Your task to perform on an android device: turn on priority inbox in the gmail app Image 0: 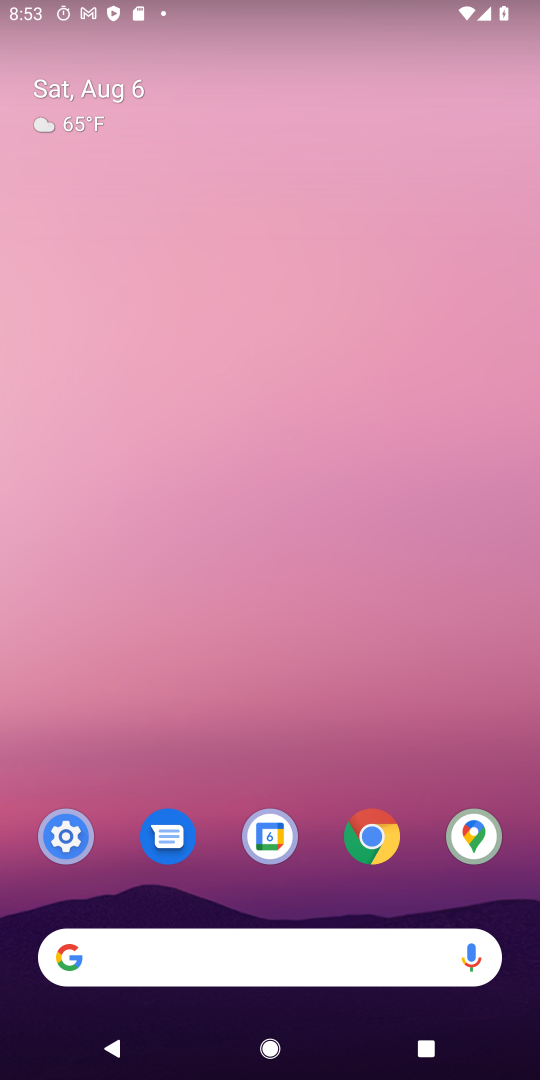
Step 0: drag from (447, 915) to (250, 64)
Your task to perform on an android device: turn on priority inbox in the gmail app Image 1: 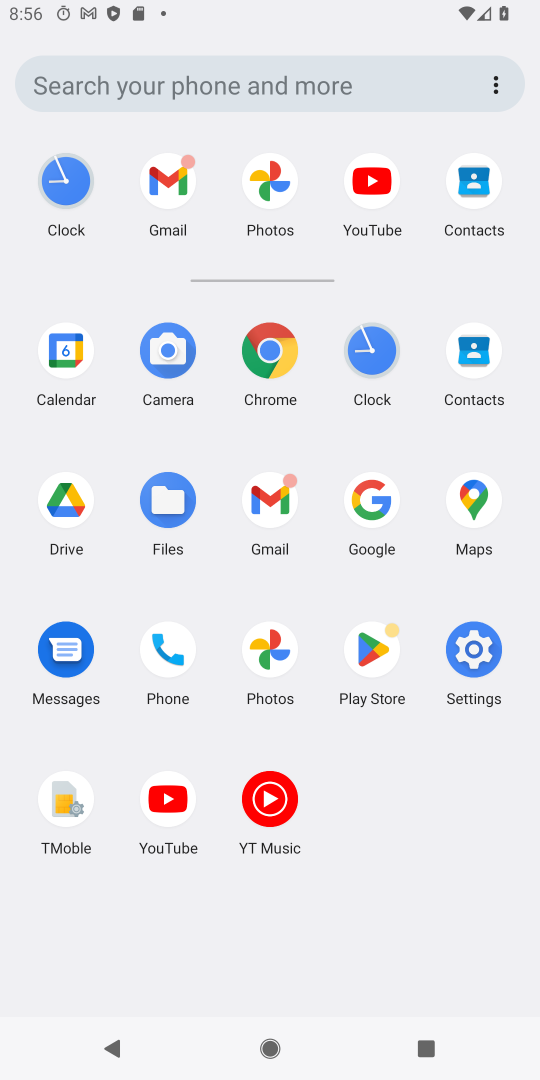
Step 1: click (273, 499)
Your task to perform on an android device: turn on priority inbox in the gmail app Image 2: 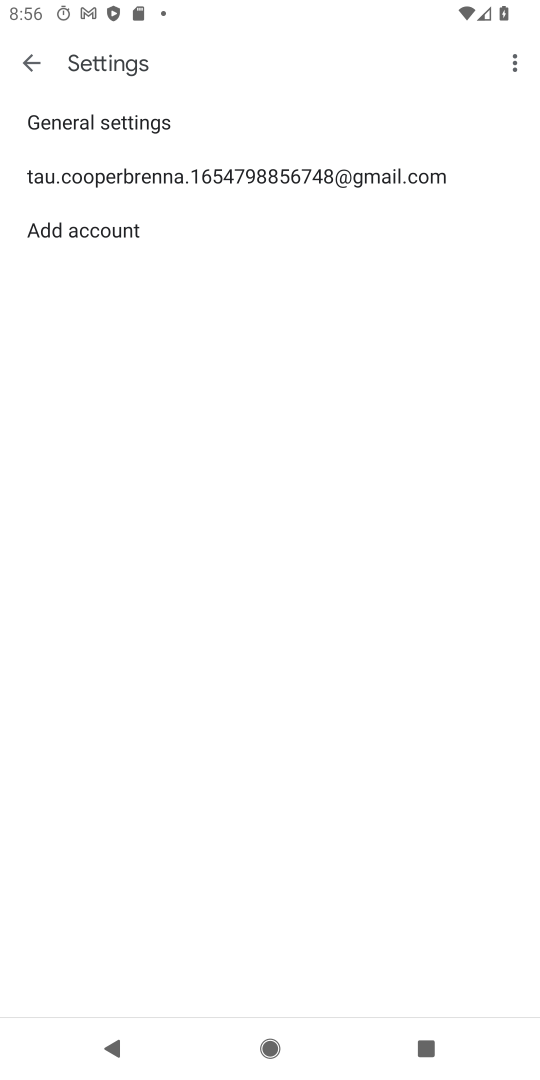
Step 2: click (382, 157)
Your task to perform on an android device: turn on priority inbox in the gmail app Image 3: 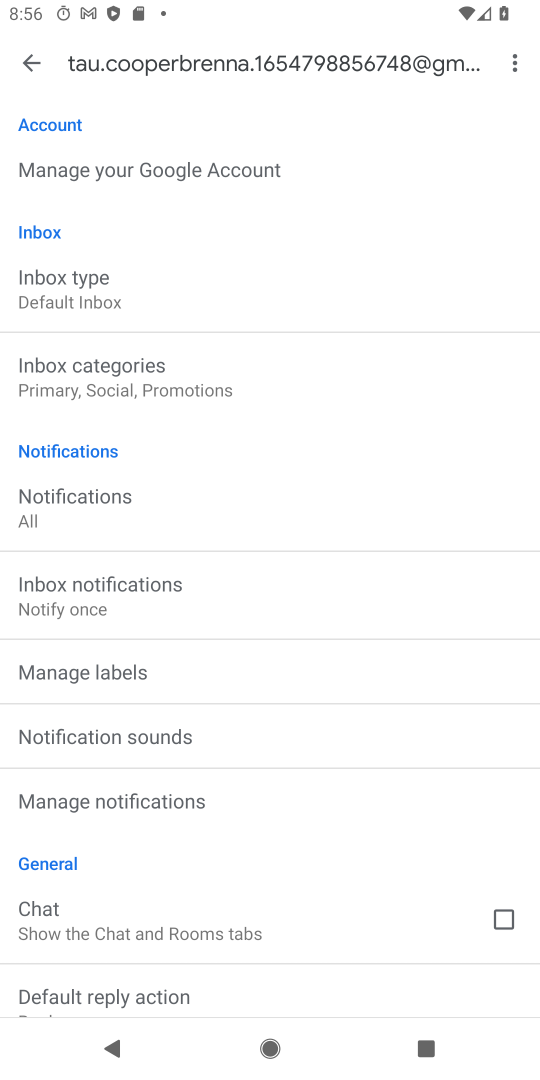
Step 3: click (84, 317)
Your task to perform on an android device: turn on priority inbox in the gmail app Image 4: 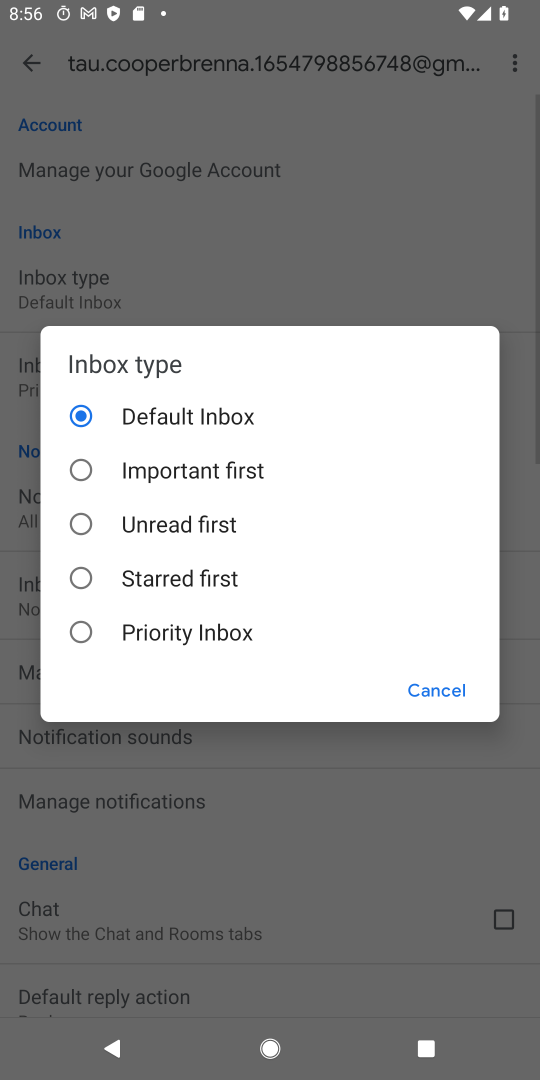
Step 4: click (91, 626)
Your task to perform on an android device: turn on priority inbox in the gmail app Image 5: 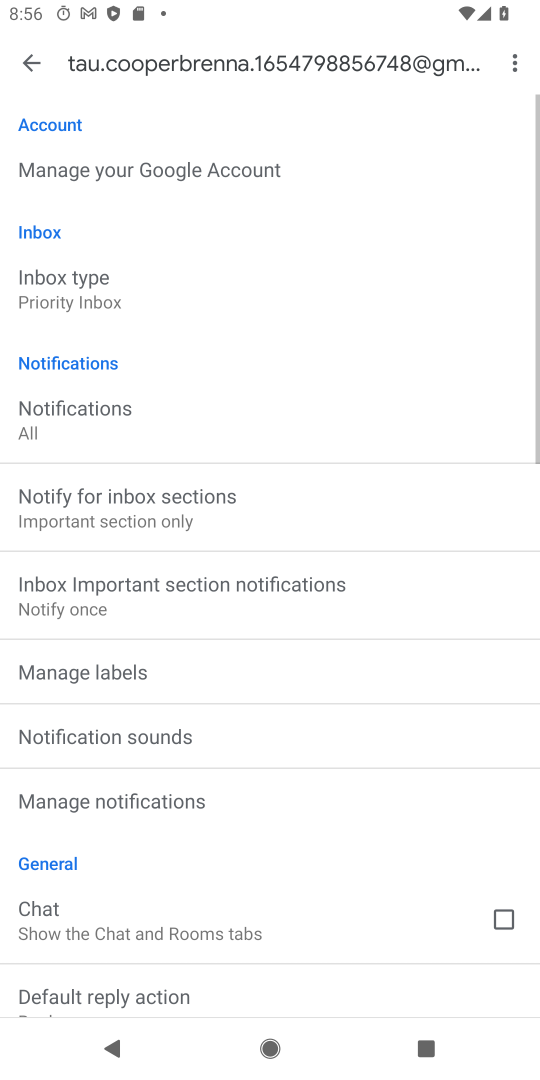
Step 5: task complete